Your task to perform on an android device: stop showing notifications on the lock screen Image 0: 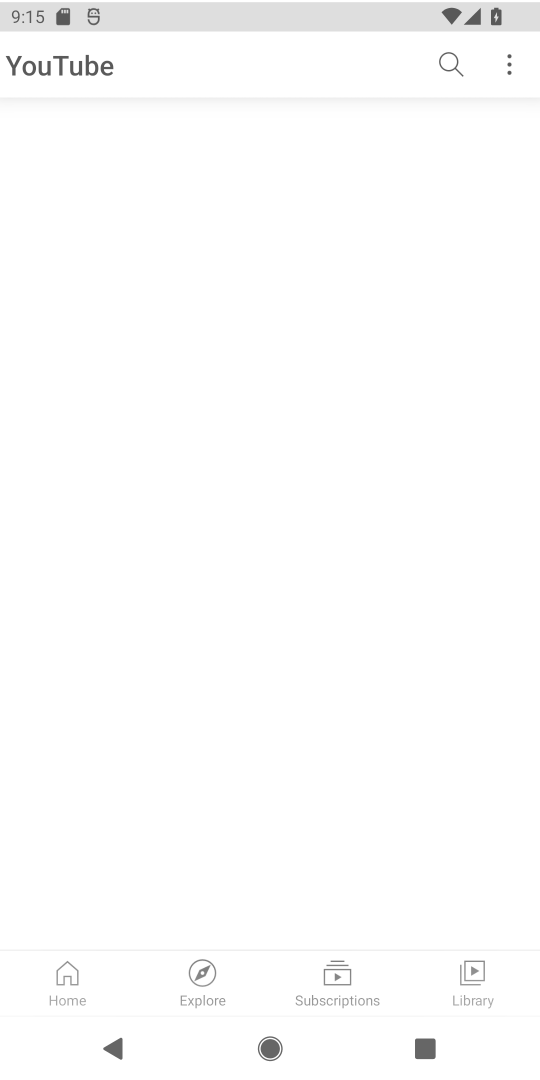
Step 0: press home button
Your task to perform on an android device: stop showing notifications on the lock screen Image 1: 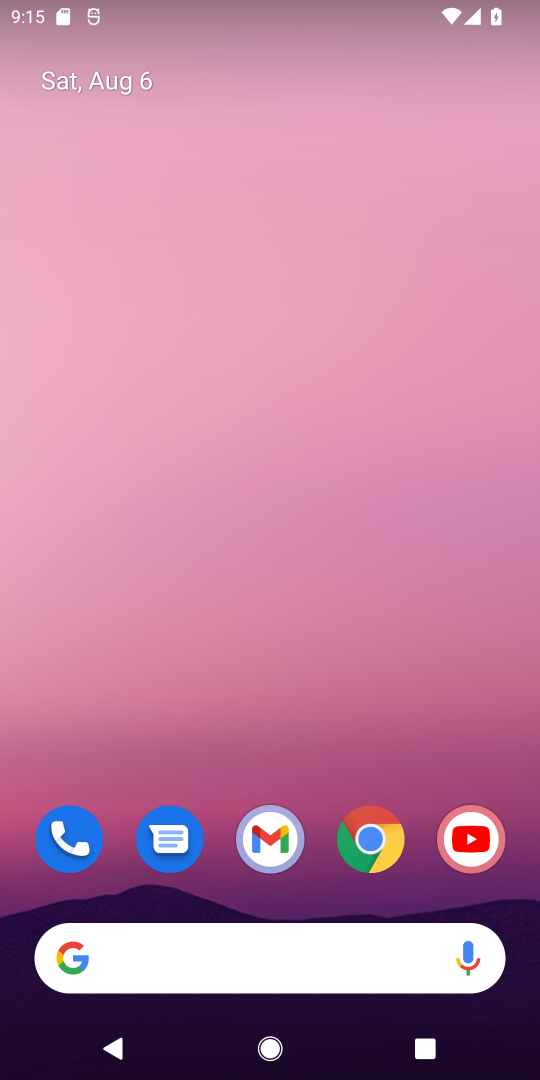
Step 1: press home button
Your task to perform on an android device: stop showing notifications on the lock screen Image 2: 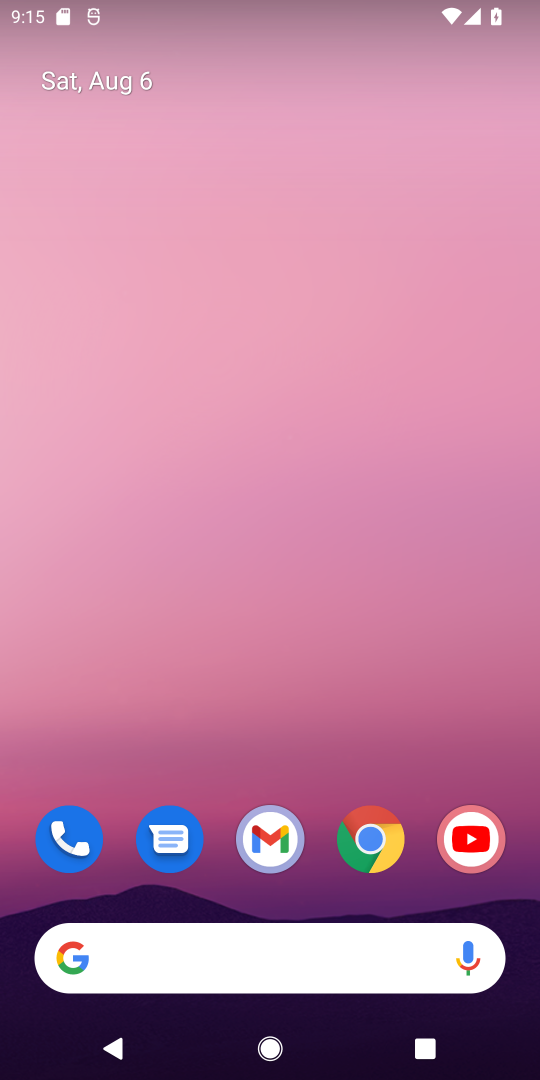
Step 2: drag from (359, 391) to (410, 52)
Your task to perform on an android device: stop showing notifications on the lock screen Image 3: 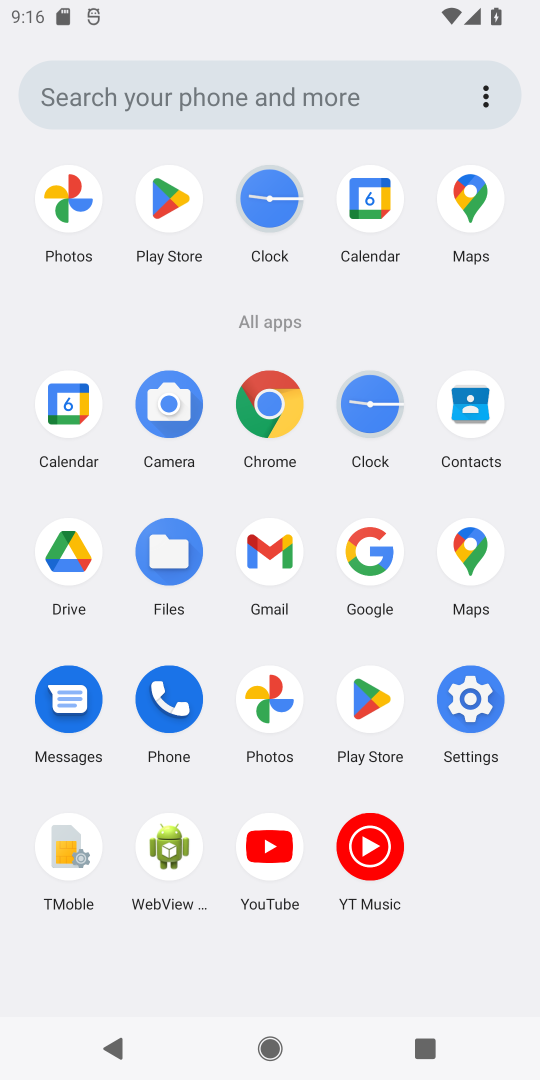
Step 3: click (470, 690)
Your task to perform on an android device: stop showing notifications on the lock screen Image 4: 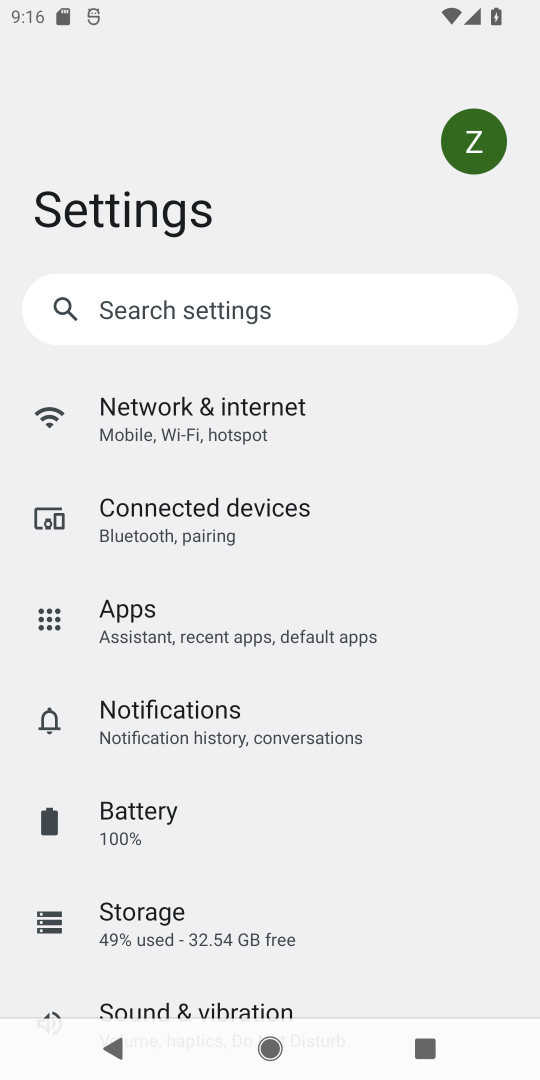
Step 4: click (230, 713)
Your task to perform on an android device: stop showing notifications on the lock screen Image 5: 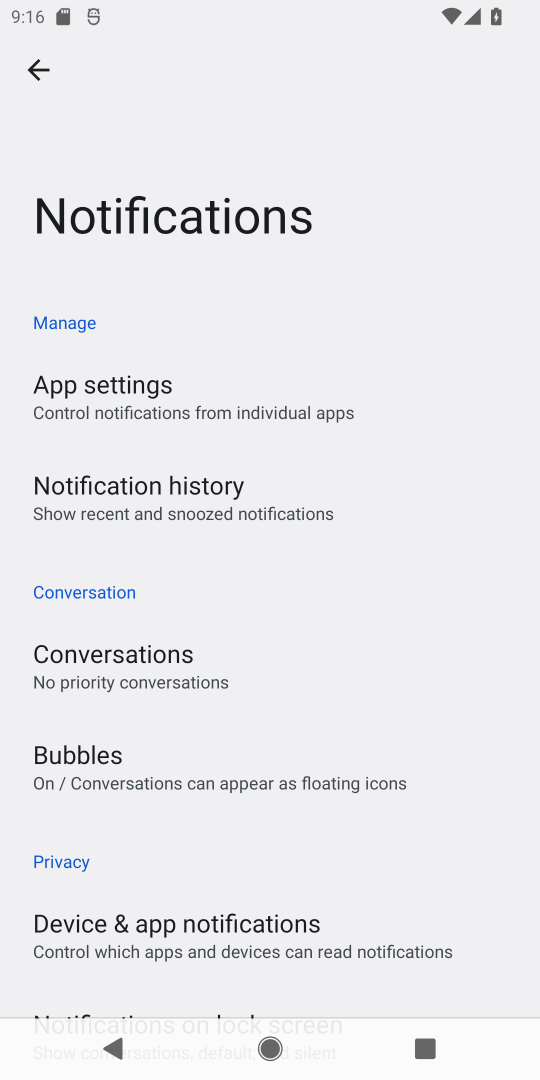
Step 5: drag from (229, 917) to (272, 336)
Your task to perform on an android device: stop showing notifications on the lock screen Image 6: 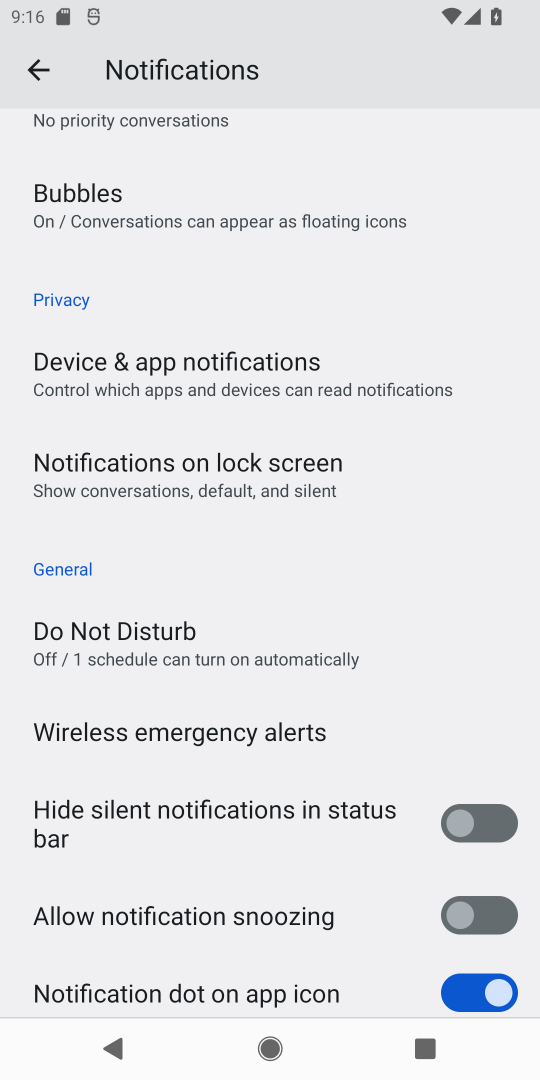
Step 6: click (255, 481)
Your task to perform on an android device: stop showing notifications on the lock screen Image 7: 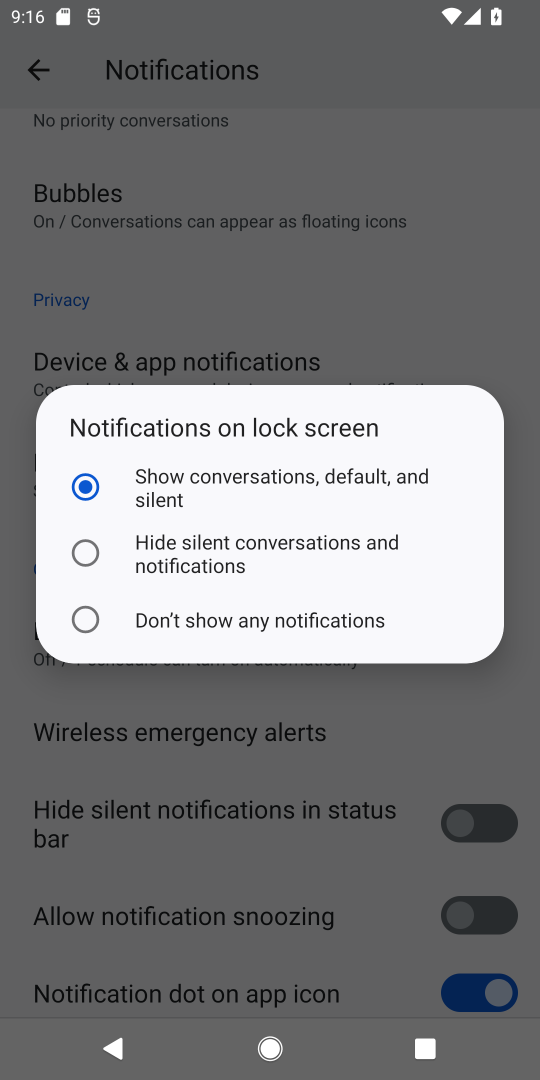
Step 7: click (106, 611)
Your task to perform on an android device: stop showing notifications on the lock screen Image 8: 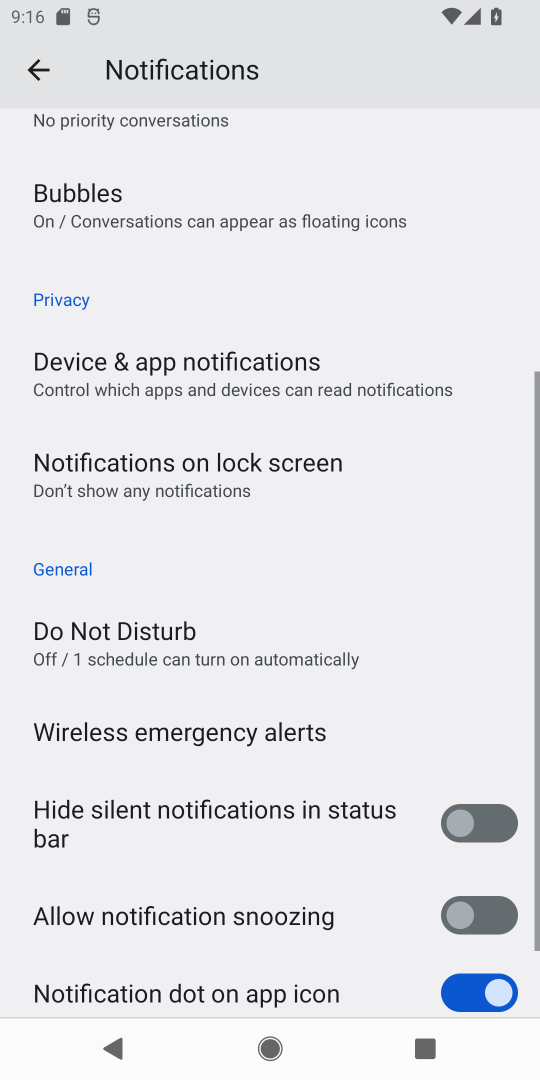
Step 8: task complete